Your task to perform on an android device: set default search engine in the chrome app Image 0: 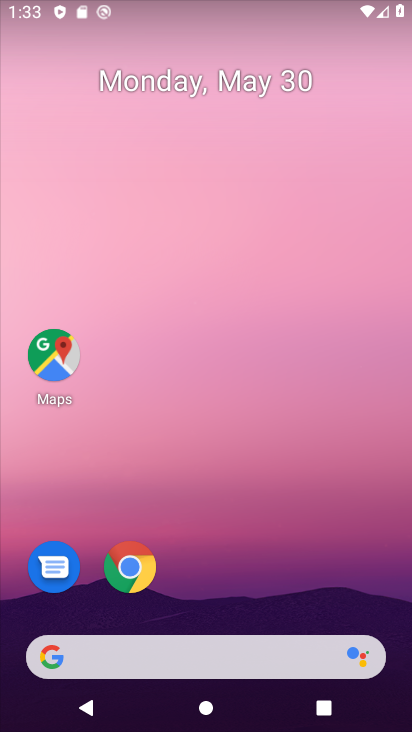
Step 0: press home button
Your task to perform on an android device: set default search engine in the chrome app Image 1: 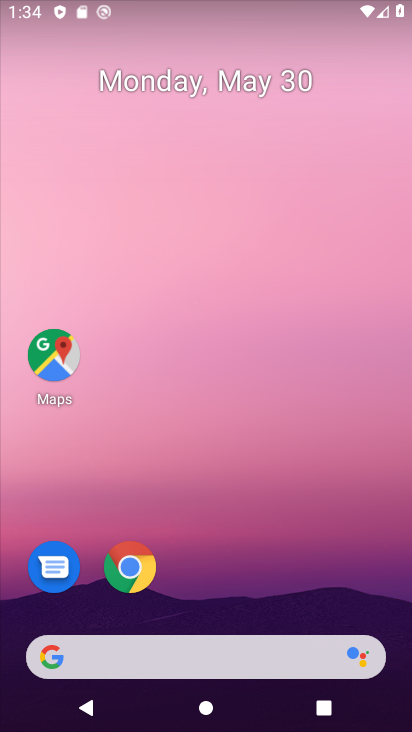
Step 1: drag from (285, 549) to (281, 54)
Your task to perform on an android device: set default search engine in the chrome app Image 2: 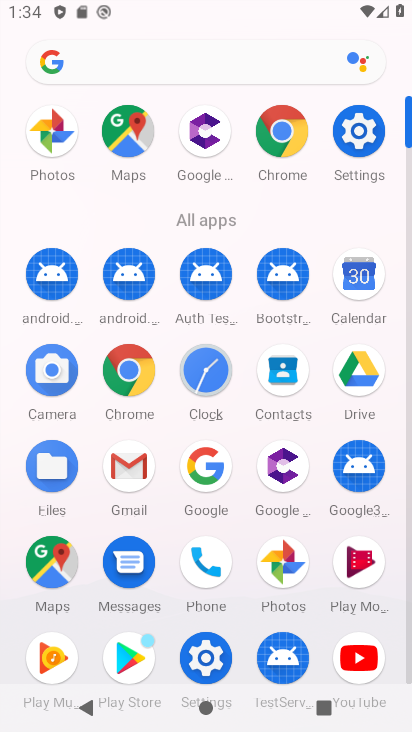
Step 2: click (147, 381)
Your task to perform on an android device: set default search engine in the chrome app Image 3: 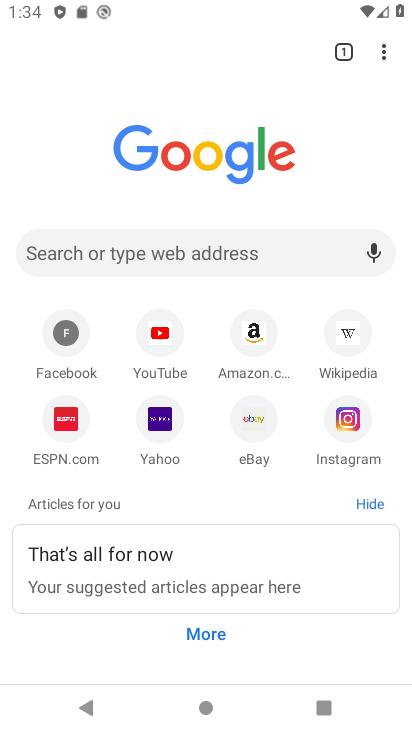
Step 3: drag from (380, 53) to (205, 417)
Your task to perform on an android device: set default search engine in the chrome app Image 4: 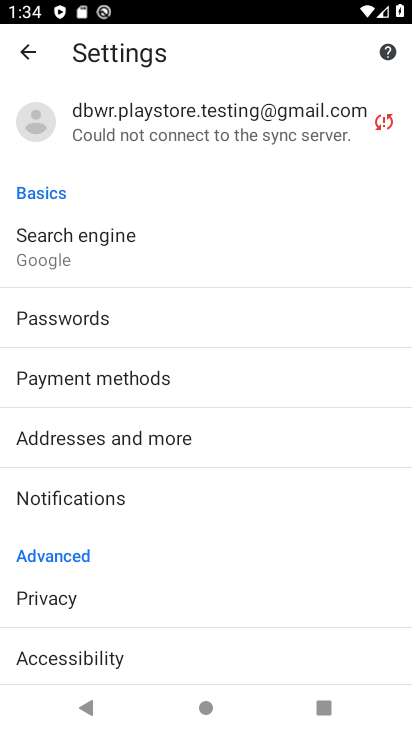
Step 4: drag from (111, 513) to (111, 133)
Your task to perform on an android device: set default search engine in the chrome app Image 5: 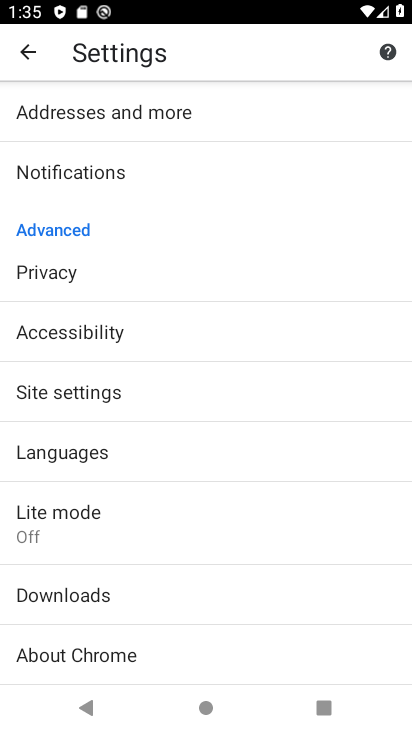
Step 5: drag from (291, 232) to (236, 675)
Your task to perform on an android device: set default search engine in the chrome app Image 6: 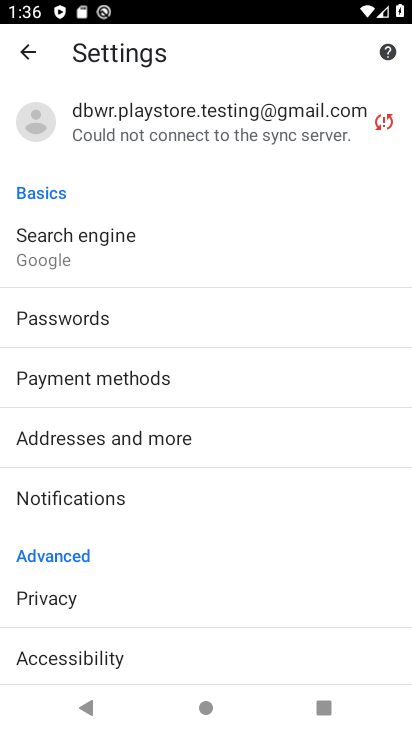
Step 6: drag from (206, 545) to (238, 211)
Your task to perform on an android device: set default search engine in the chrome app Image 7: 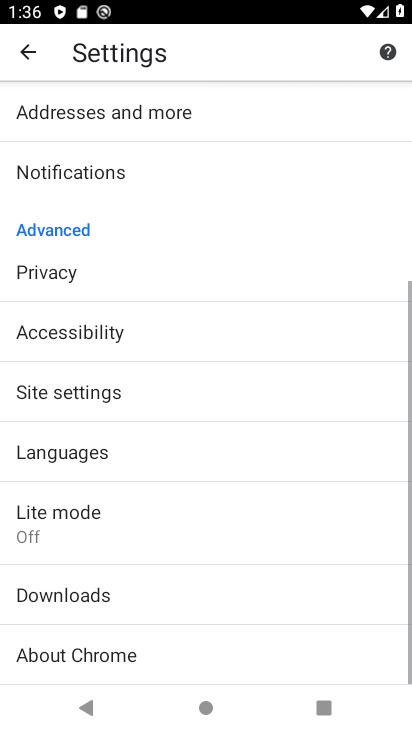
Step 7: click (157, 245)
Your task to perform on an android device: set default search engine in the chrome app Image 8: 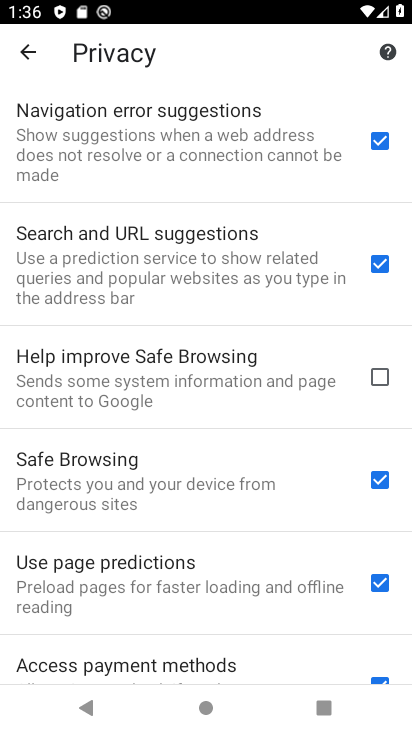
Step 8: click (27, 62)
Your task to perform on an android device: set default search engine in the chrome app Image 9: 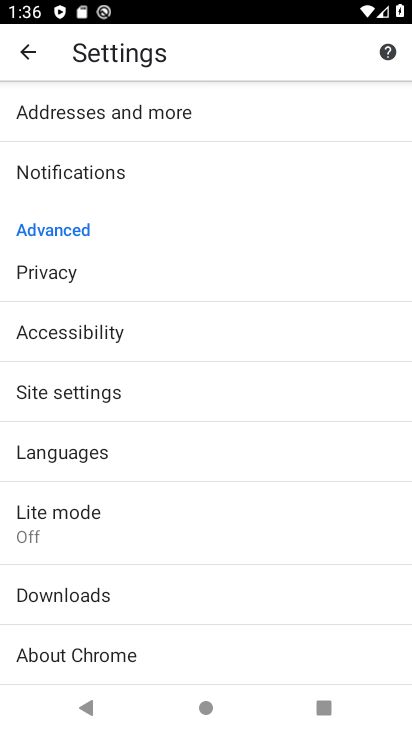
Step 9: click (112, 63)
Your task to perform on an android device: set default search engine in the chrome app Image 10: 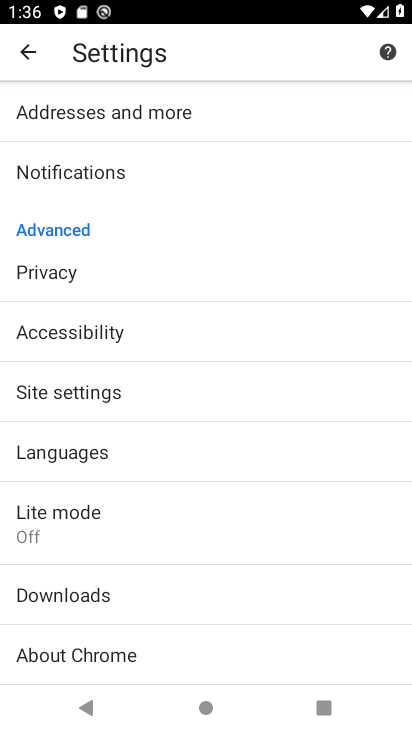
Step 10: drag from (201, 145) to (188, 442)
Your task to perform on an android device: set default search engine in the chrome app Image 11: 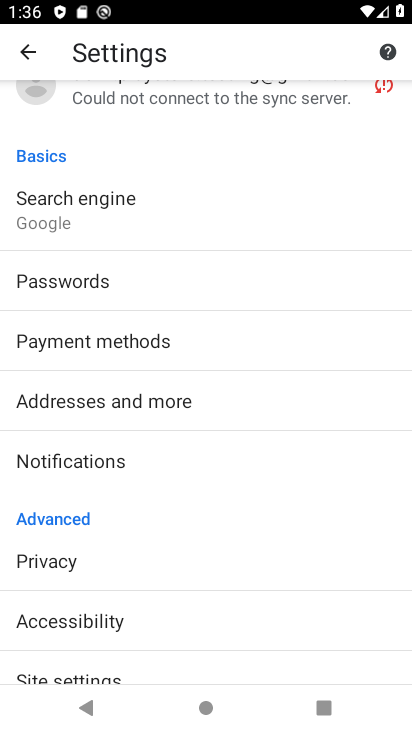
Step 11: drag from (326, 213) to (329, 434)
Your task to perform on an android device: set default search engine in the chrome app Image 12: 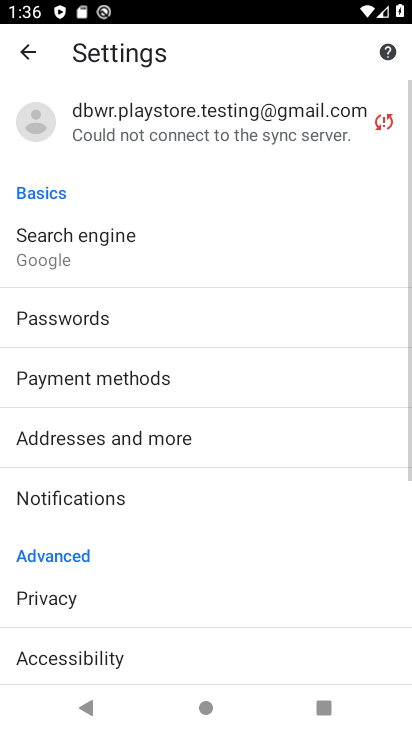
Step 12: drag from (349, 346) to (342, 389)
Your task to perform on an android device: set default search engine in the chrome app Image 13: 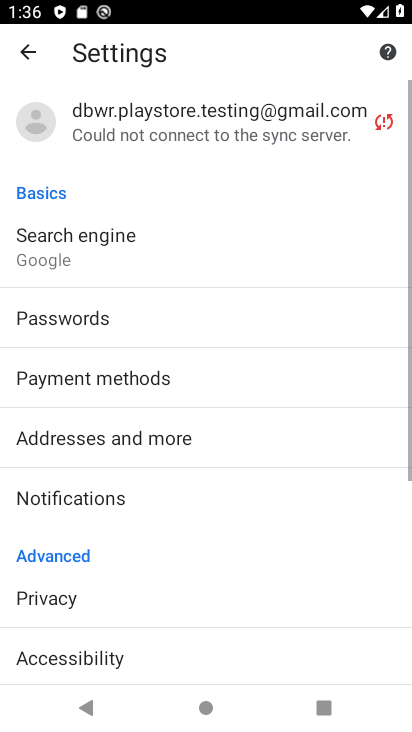
Step 13: click (99, 245)
Your task to perform on an android device: set default search engine in the chrome app Image 14: 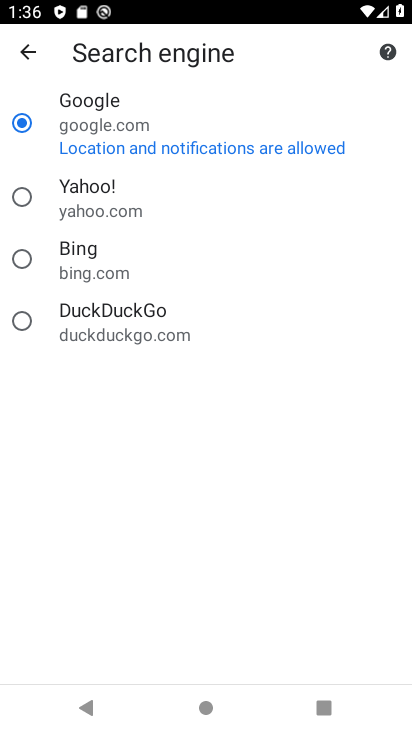
Step 14: task complete